Your task to perform on an android device: turn on notifications settings in the gmail app Image 0: 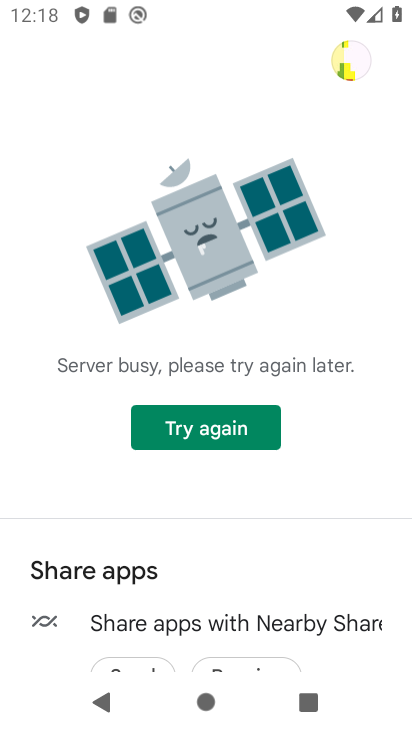
Step 0: press home button
Your task to perform on an android device: turn on notifications settings in the gmail app Image 1: 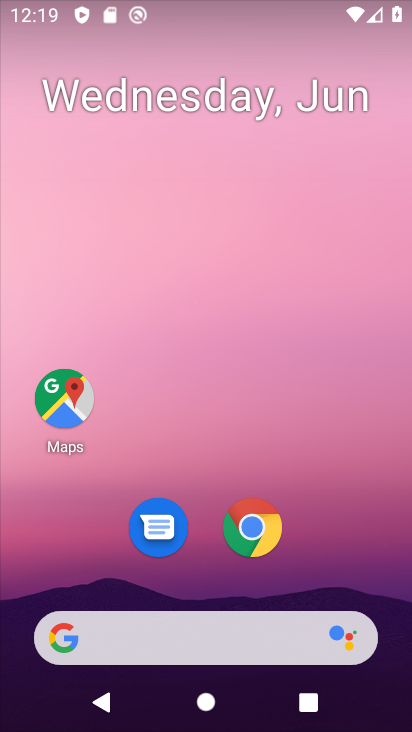
Step 1: drag from (220, 463) to (235, 75)
Your task to perform on an android device: turn on notifications settings in the gmail app Image 2: 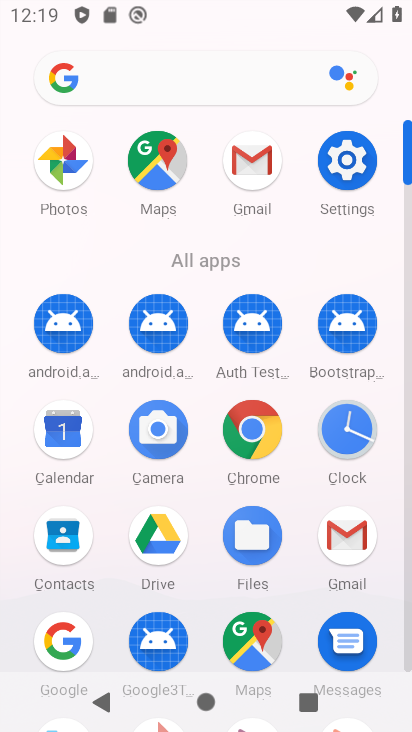
Step 2: click (253, 154)
Your task to perform on an android device: turn on notifications settings in the gmail app Image 3: 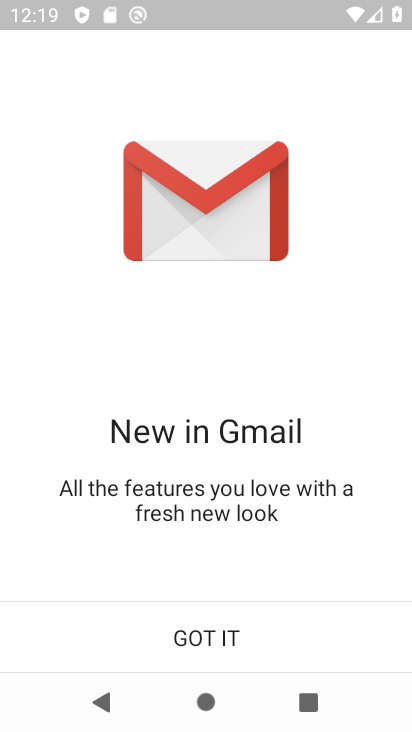
Step 3: click (198, 646)
Your task to perform on an android device: turn on notifications settings in the gmail app Image 4: 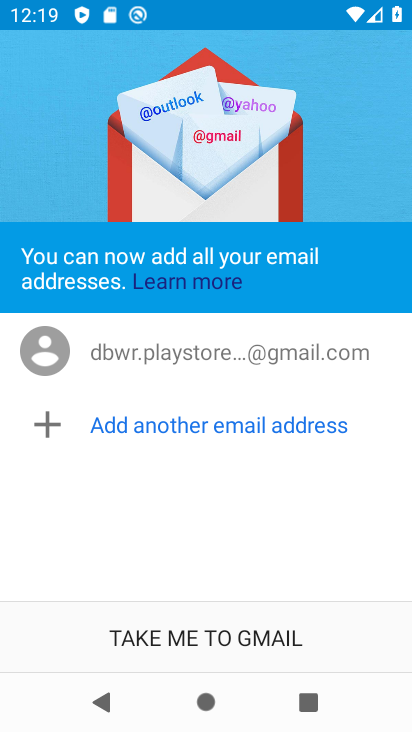
Step 4: click (176, 654)
Your task to perform on an android device: turn on notifications settings in the gmail app Image 5: 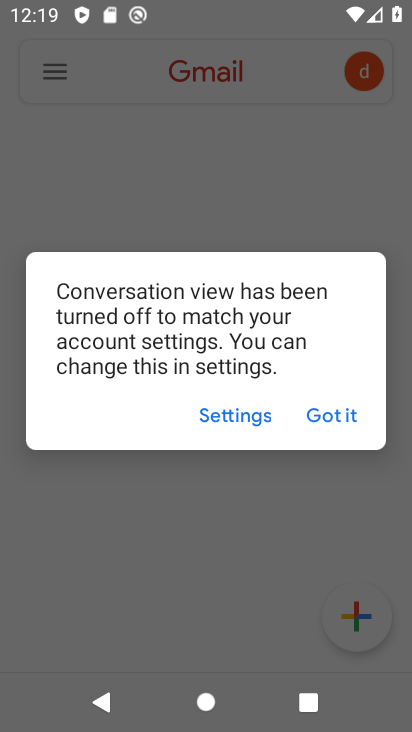
Step 5: click (327, 411)
Your task to perform on an android device: turn on notifications settings in the gmail app Image 6: 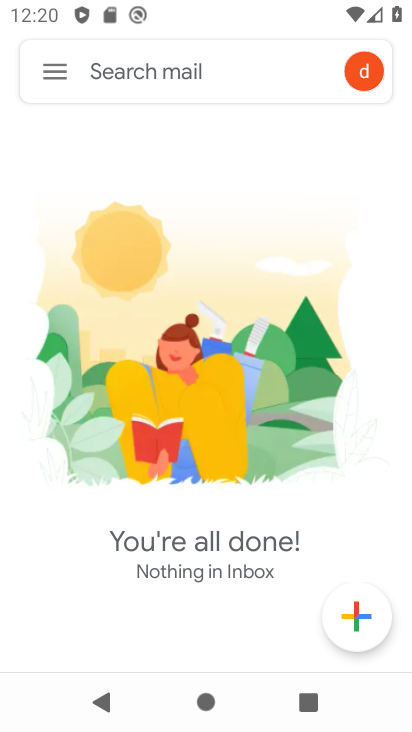
Step 6: click (44, 58)
Your task to perform on an android device: turn on notifications settings in the gmail app Image 7: 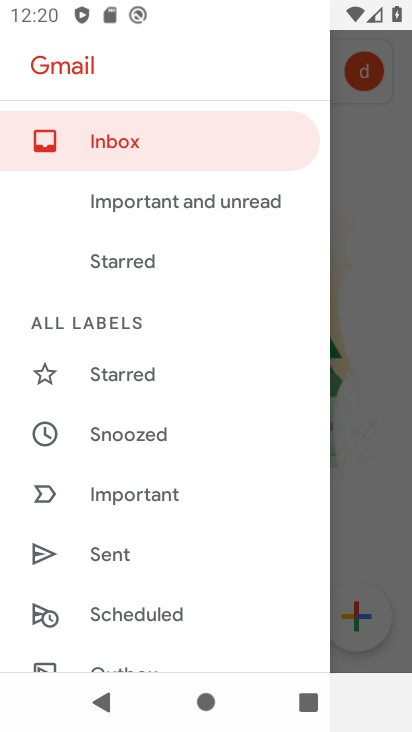
Step 7: drag from (150, 607) to (48, 5)
Your task to perform on an android device: turn on notifications settings in the gmail app Image 8: 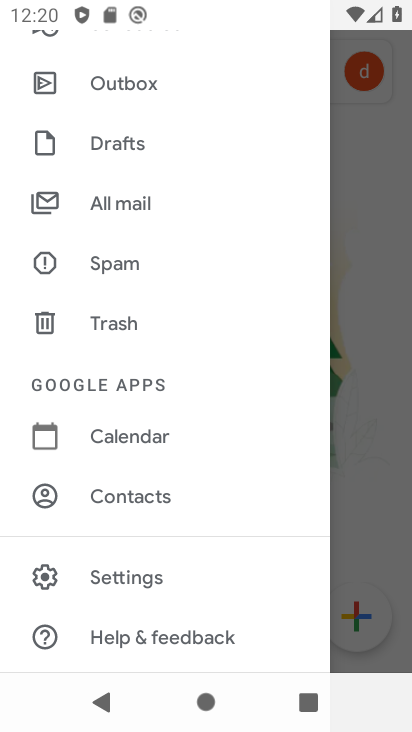
Step 8: click (132, 584)
Your task to perform on an android device: turn on notifications settings in the gmail app Image 9: 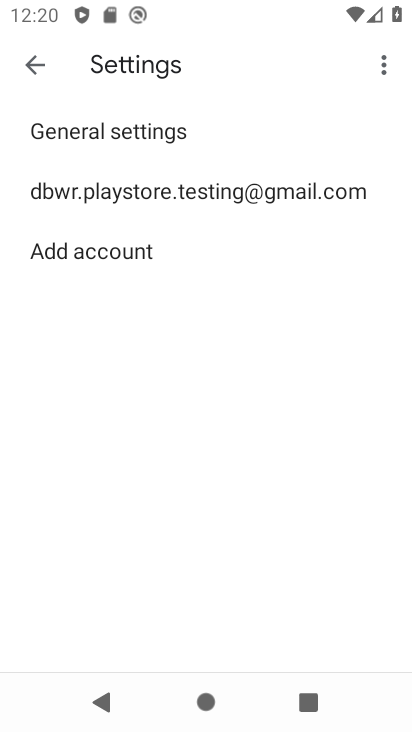
Step 9: click (162, 210)
Your task to perform on an android device: turn on notifications settings in the gmail app Image 10: 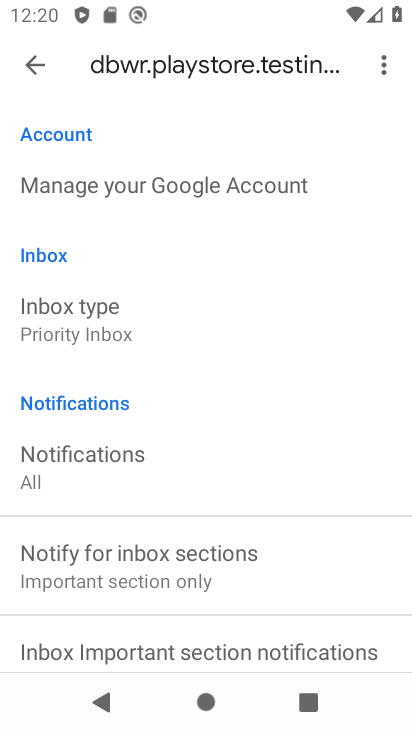
Step 10: drag from (148, 494) to (221, 92)
Your task to perform on an android device: turn on notifications settings in the gmail app Image 11: 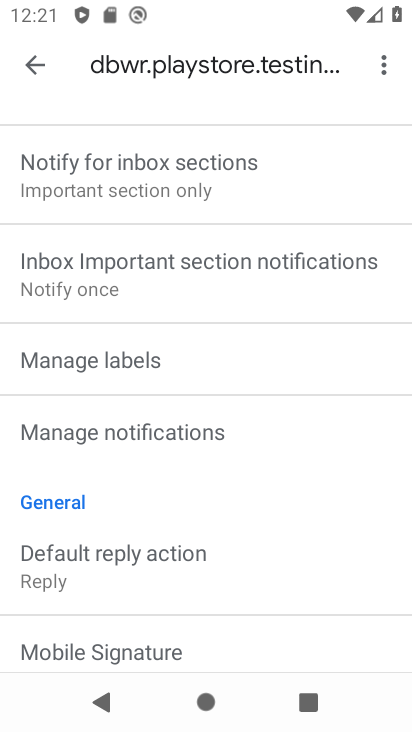
Step 11: click (194, 434)
Your task to perform on an android device: turn on notifications settings in the gmail app Image 12: 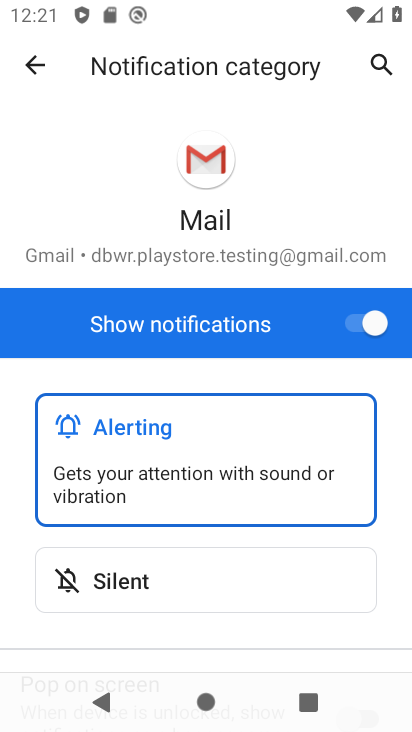
Step 12: task complete